Your task to perform on an android device: turn off picture-in-picture Image 0: 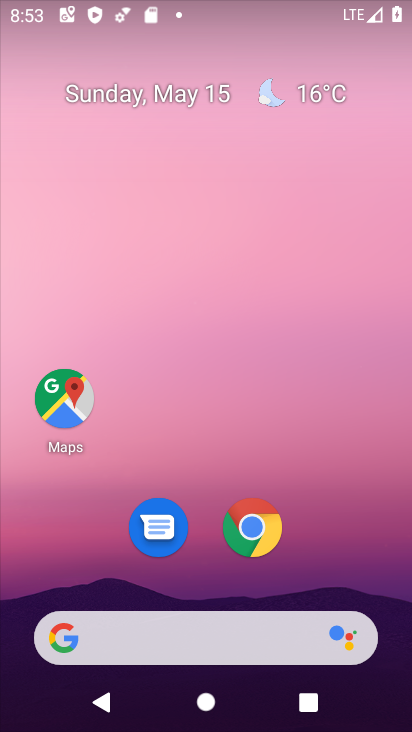
Step 0: click (255, 529)
Your task to perform on an android device: turn off picture-in-picture Image 1: 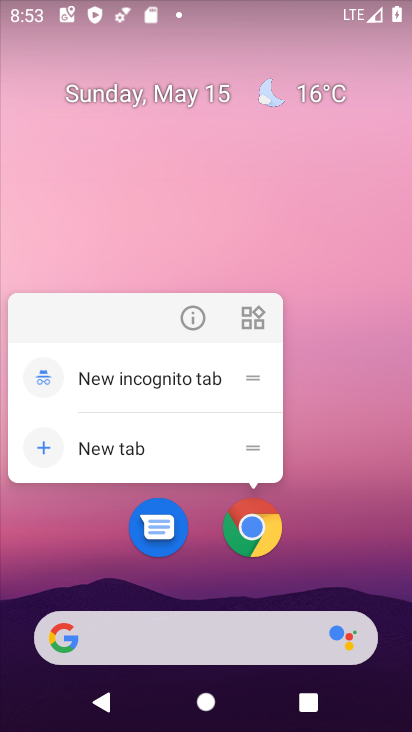
Step 1: click (199, 323)
Your task to perform on an android device: turn off picture-in-picture Image 2: 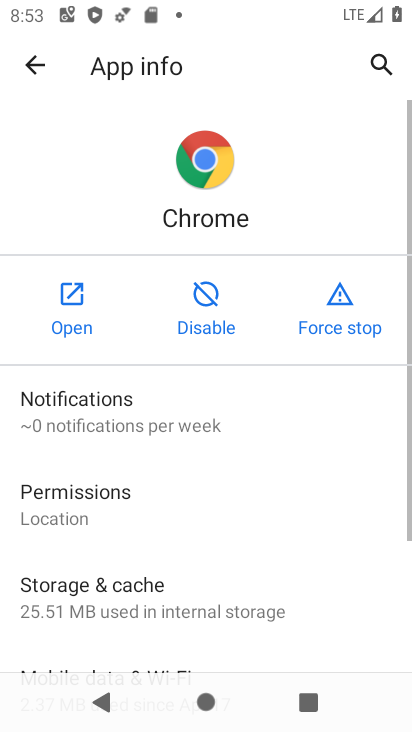
Step 2: drag from (198, 481) to (188, 0)
Your task to perform on an android device: turn off picture-in-picture Image 3: 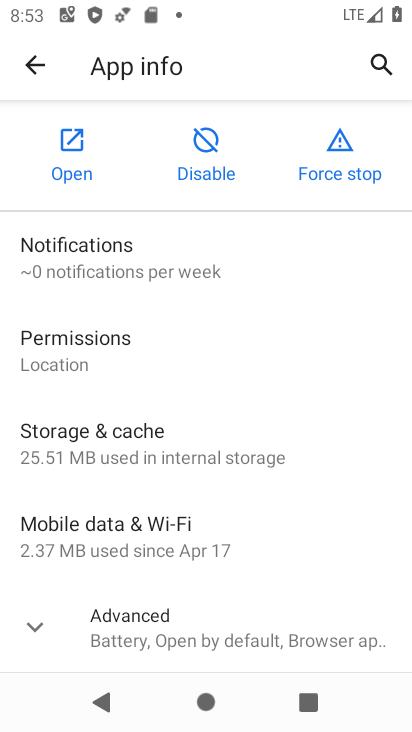
Step 3: click (29, 624)
Your task to perform on an android device: turn off picture-in-picture Image 4: 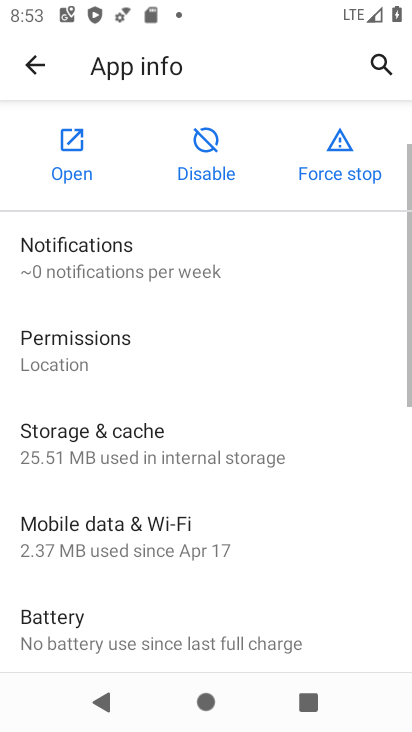
Step 4: drag from (155, 619) to (177, 51)
Your task to perform on an android device: turn off picture-in-picture Image 5: 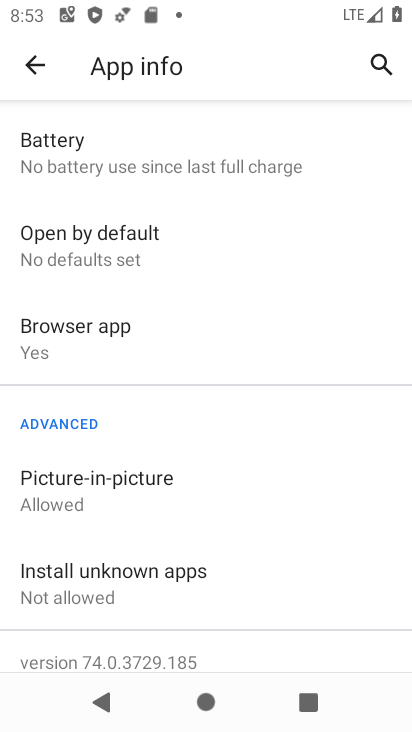
Step 5: click (55, 495)
Your task to perform on an android device: turn off picture-in-picture Image 6: 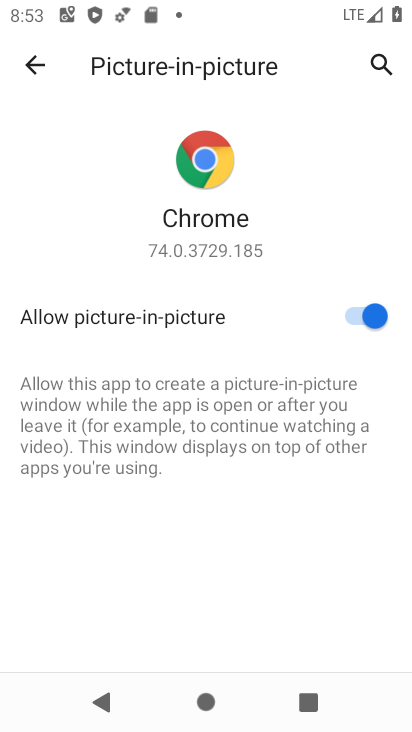
Step 6: click (390, 317)
Your task to perform on an android device: turn off picture-in-picture Image 7: 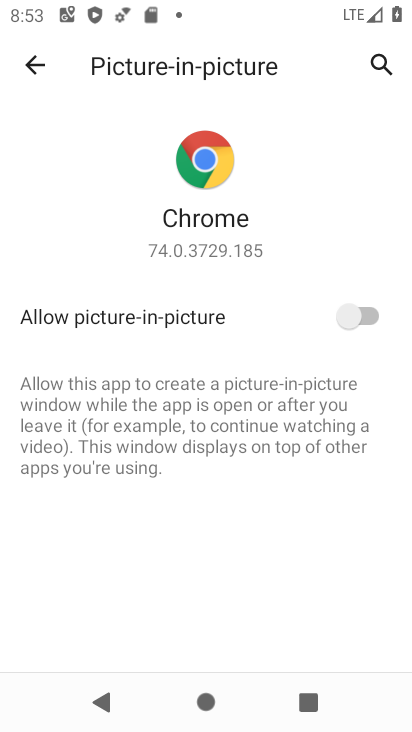
Step 7: task complete